Your task to perform on an android device: Open settings on Google Maps Image 0: 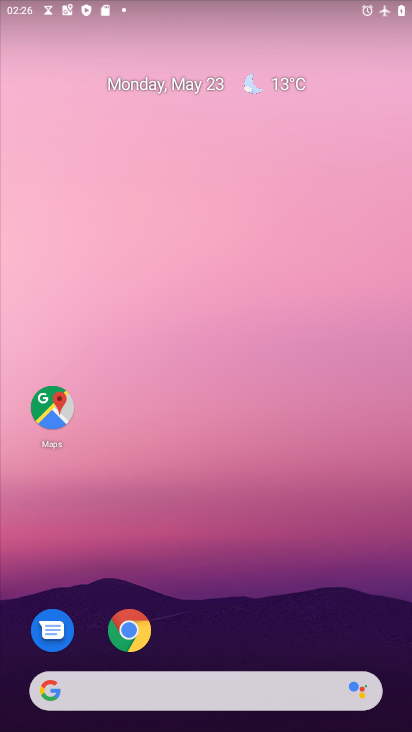
Step 0: click (54, 404)
Your task to perform on an android device: Open settings on Google Maps Image 1: 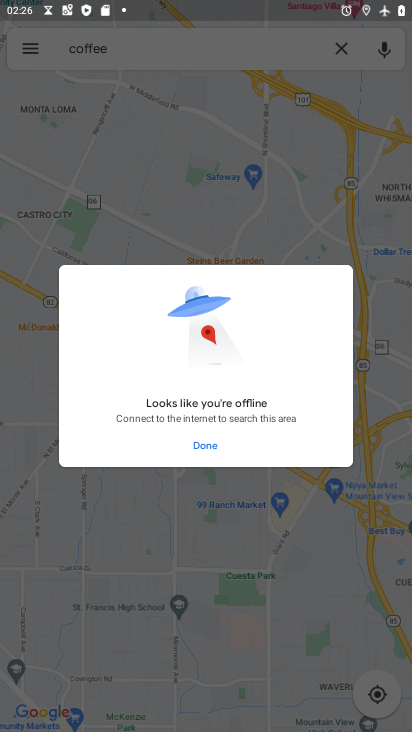
Step 1: click (201, 447)
Your task to perform on an android device: Open settings on Google Maps Image 2: 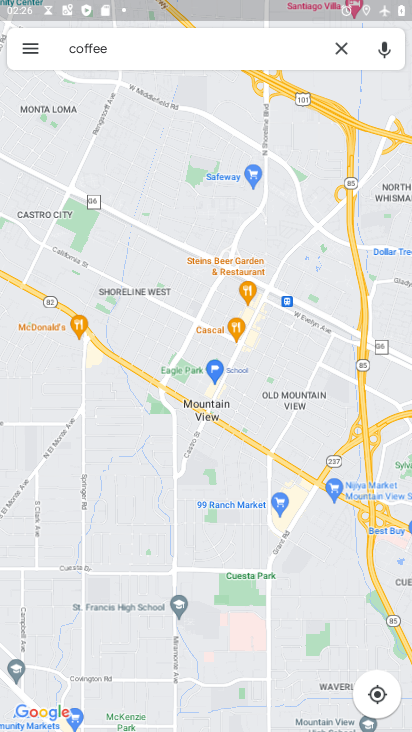
Step 2: click (27, 51)
Your task to perform on an android device: Open settings on Google Maps Image 3: 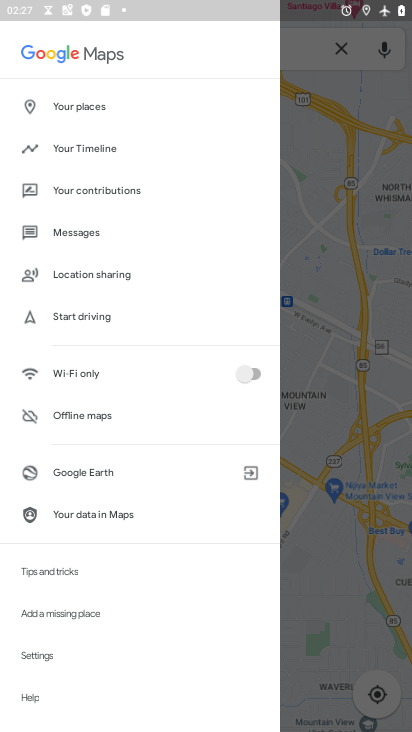
Step 3: click (56, 654)
Your task to perform on an android device: Open settings on Google Maps Image 4: 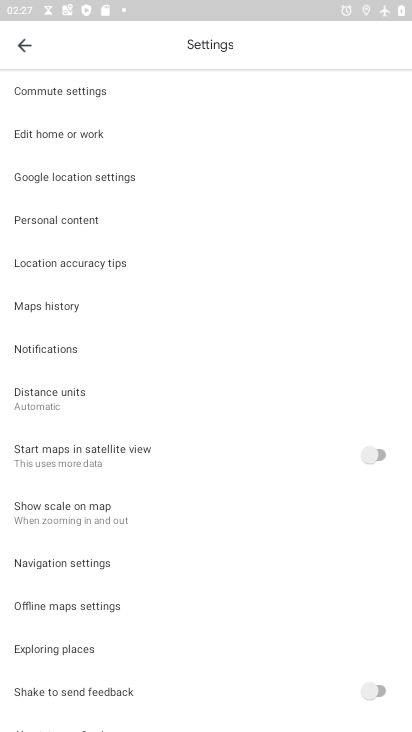
Step 4: task complete